Your task to perform on an android device: change the clock display to digital Image 0: 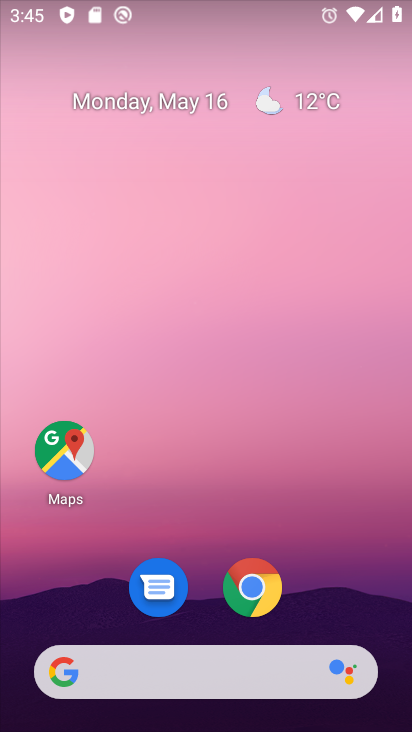
Step 0: drag from (393, 654) to (374, 341)
Your task to perform on an android device: change the clock display to digital Image 1: 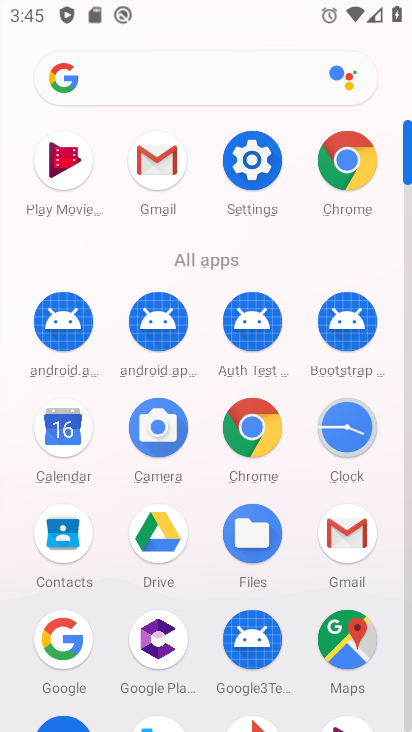
Step 1: click (348, 462)
Your task to perform on an android device: change the clock display to digital Image 2: 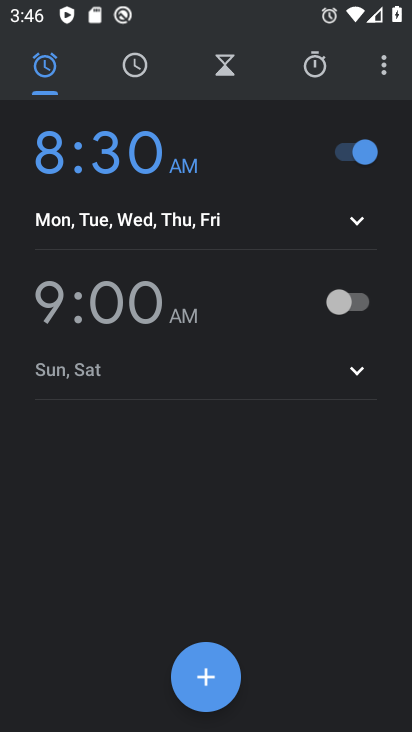
Step 2: press home button
Your task to perform on an android device: change the clock display to digital Image 3: 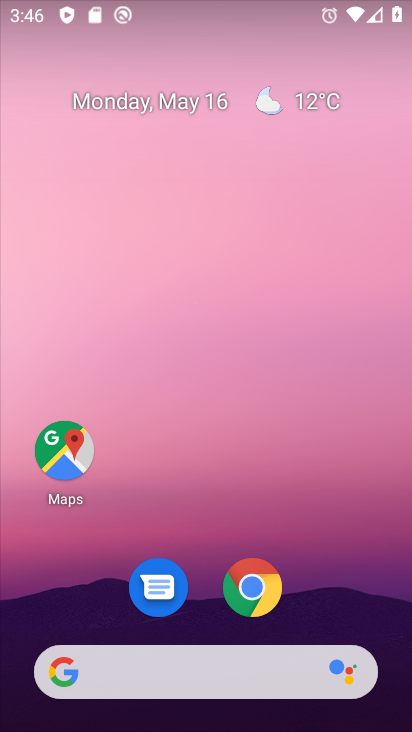
Step 3: click (346, 313)
Your task to perform on an android device: change the clock display to digital Image 4: 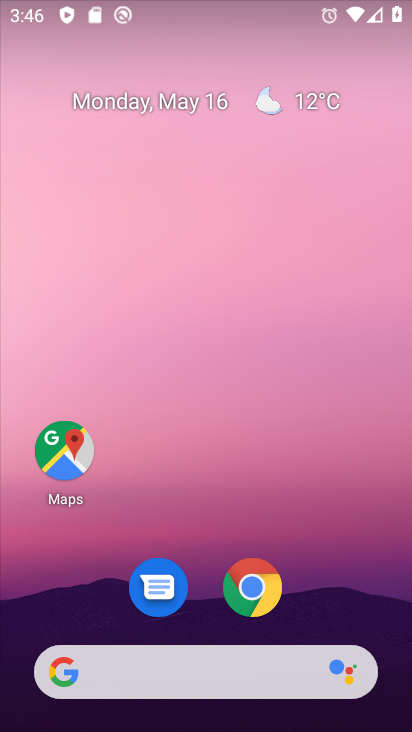
Step 4: drag from (387, 657) to (396, 316)
Your task to perform on an android device: change the clock display to digital Image 5: 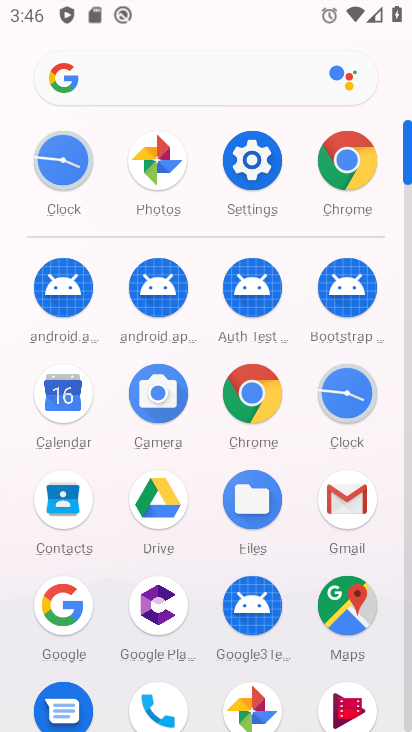
Step 5: click (267, 151)
Your task to perform on an android device: change the clock display to digital Image 6: 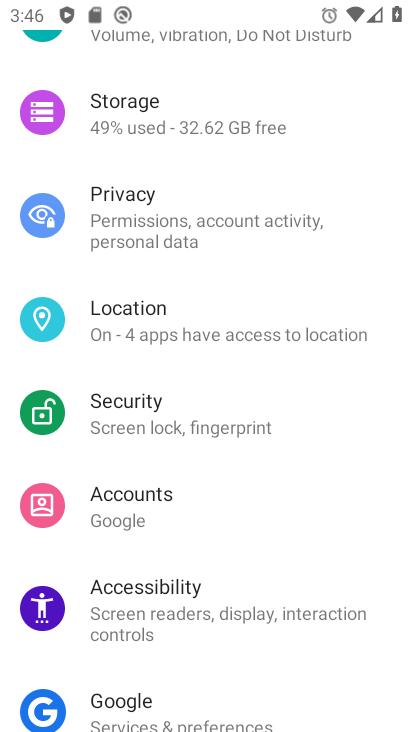
Step 6: press home button
Your task to perform on an android device: change the clock display to digital Image 7: 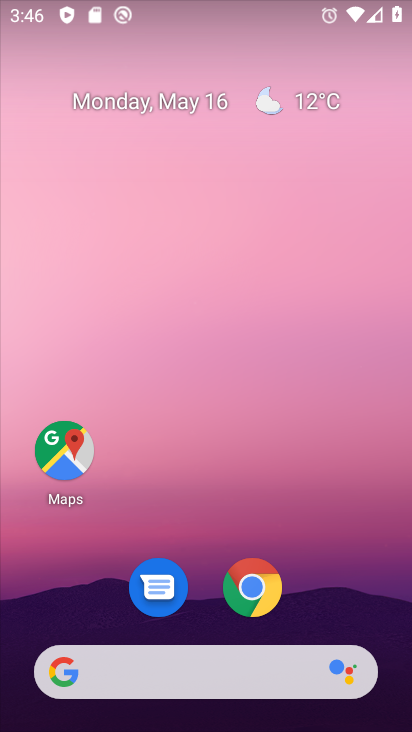
Step 7: drag from (397, 447) to (395, 399)
Your task to perform on an android device: change the clock display to digital Image 8: 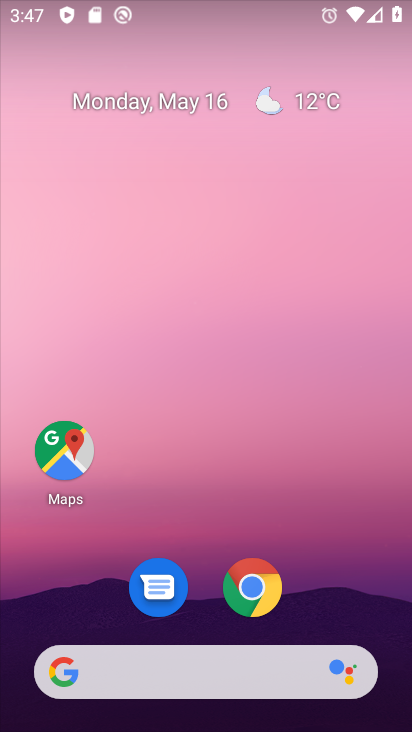
Step 8: click (399, 337)
Your task to perform on an android device: change the clock display to digital Image 9: 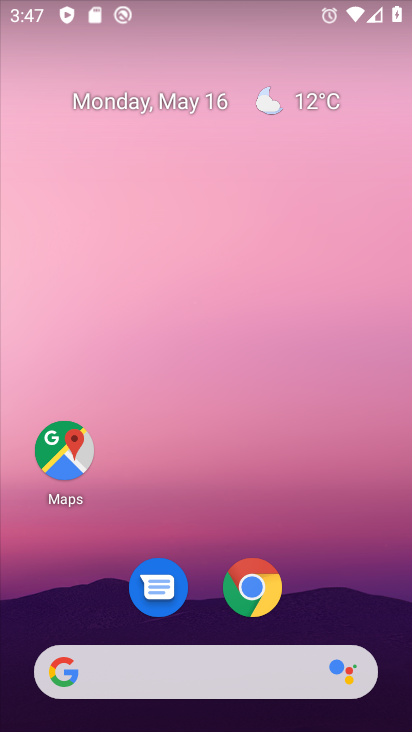
Step 9: drag from (389, 654) to (379, 346)
Your task to perform on an android device: change the clock display to digital Image 10: 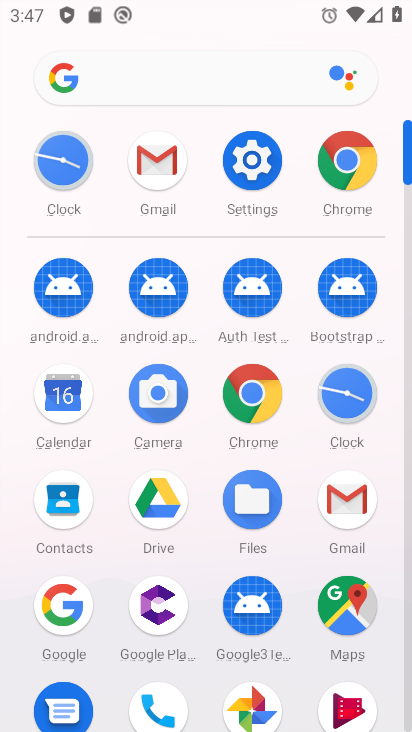
Step 10: click (344, 393)
Your task to perform on an android device: change the clock display to digital Image 11: 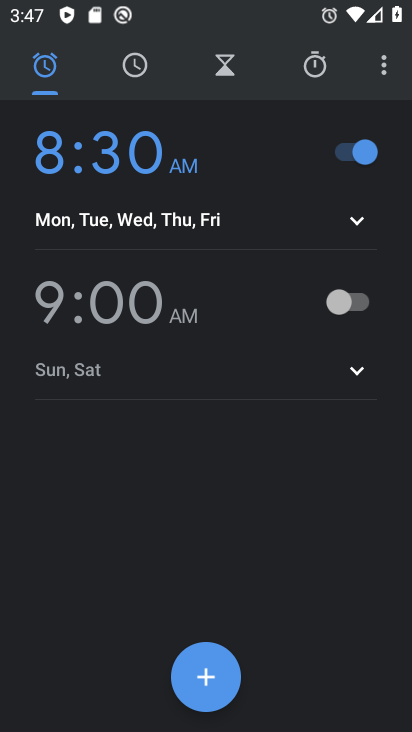
Step 11: click (377, 66)
Your task to perform on an android device: change the clock display to digital Image 12: 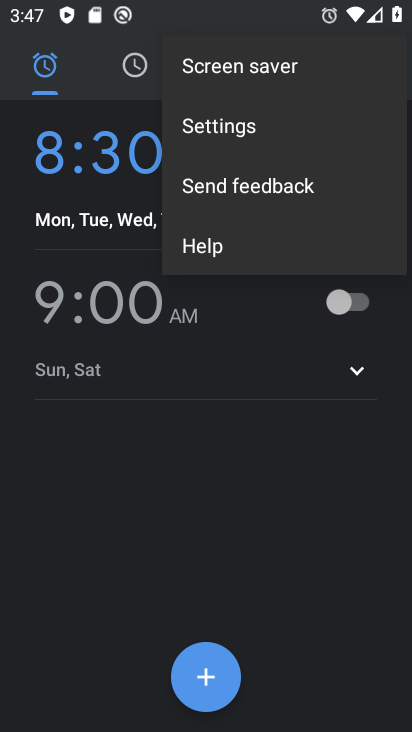
Step 12: click (237, 127)
Your task to perform on an android device: change the clock display to digital Image 13: 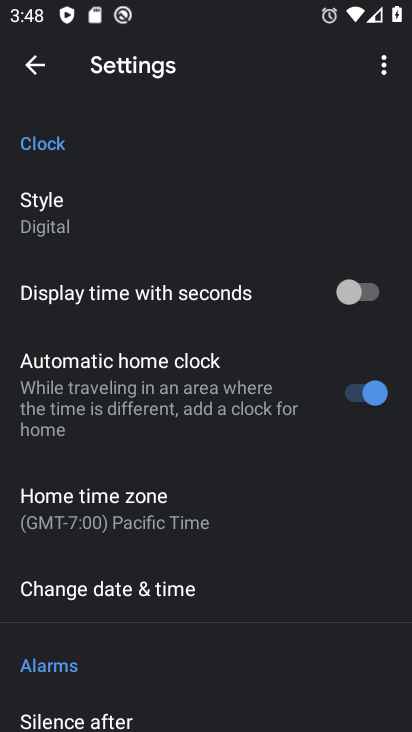
Step 13: click (30, 207)
Your task to perform on an android device: change the clock display to digital Image 14: 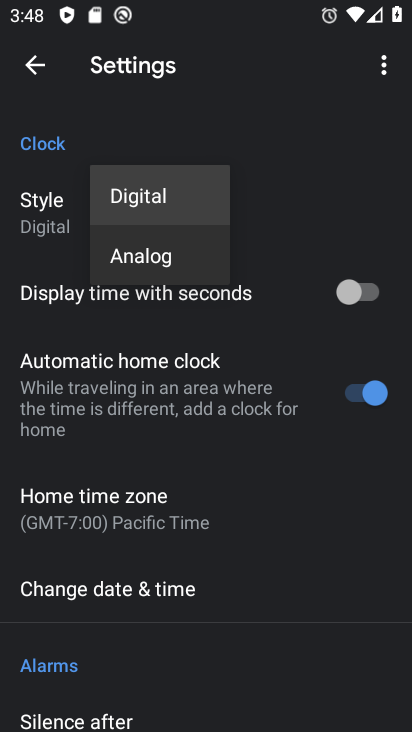
Step 14: click (151, 247)
Your task to perform on an android device: change the clock display to digital Image 15: 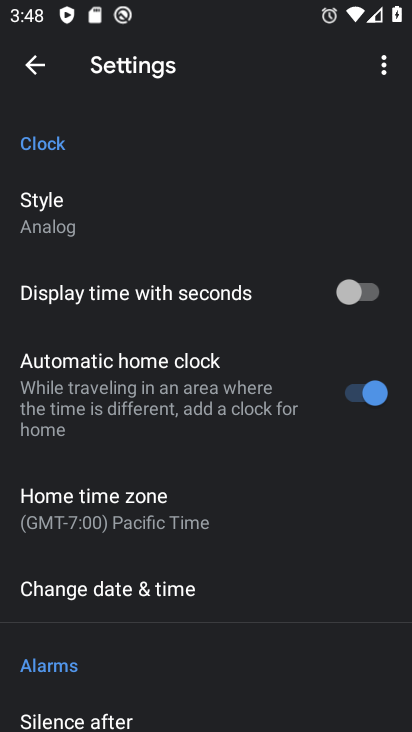
Step 15: task complete